Your task to perform on an android device: show emergency info Image 0: 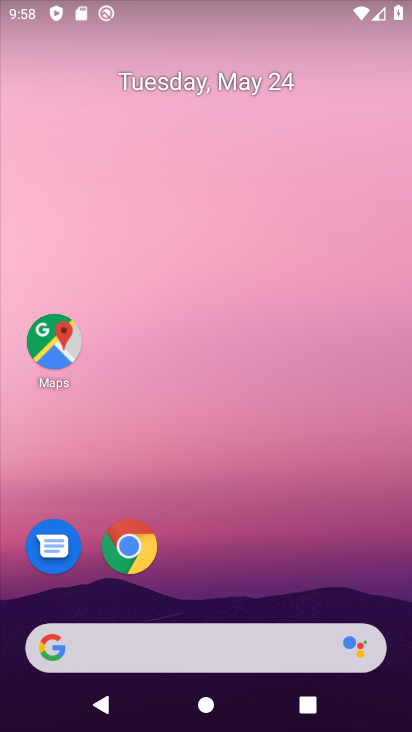
Step 0: drag from (285, 518) to (275, 72)
Your task to perform on an android device: show emergency info Image 1: 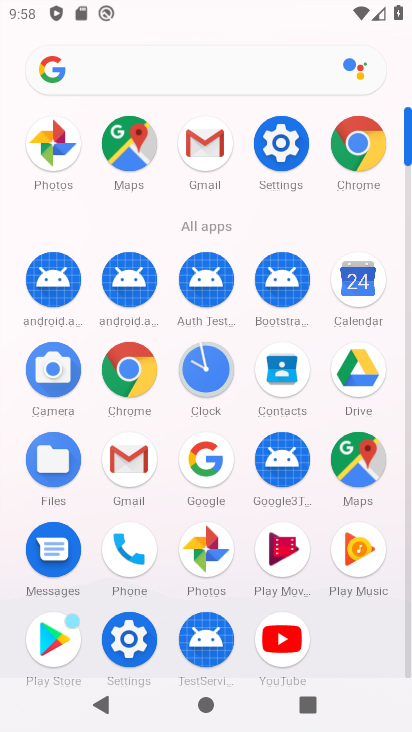
Step 1: click (277, 137)
Your task to perform on an android device: show emergency info Image 2: 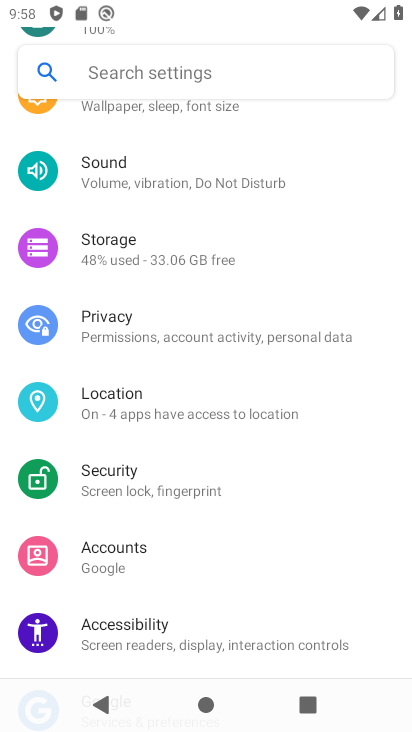
Step 2: drag from (206, 602) to (266, 118)
Your task to perform on an android device: show emergency info Image 3: 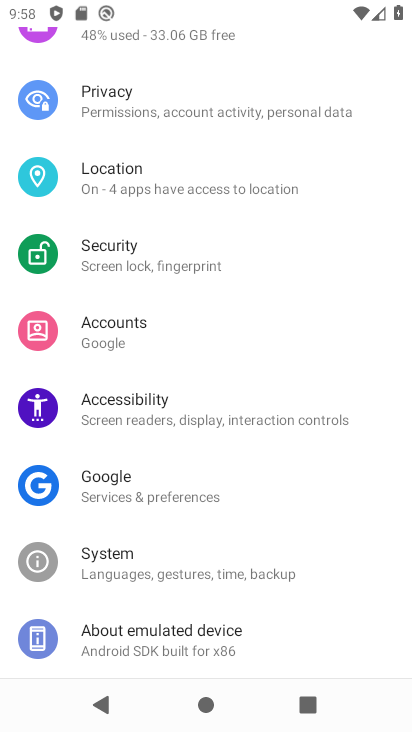
Step 3: drag from (269, 603) to (312, 270)
Your task to perform on an android device: show emergency info Image 4: 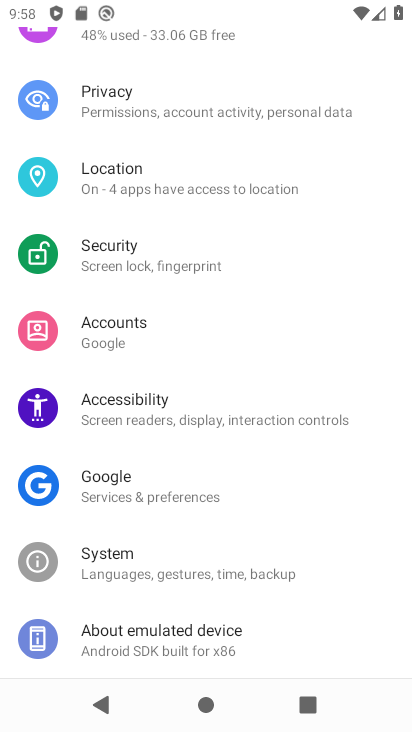
Step 4: click (188, 648)
Your task to perform on an android device: show emergency info Image 5: 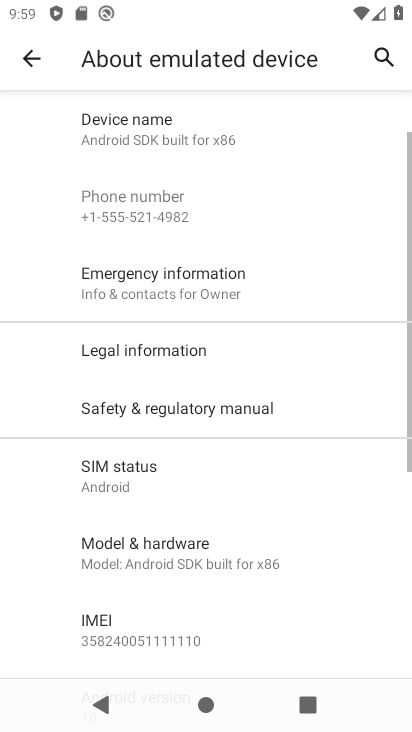
Step 5: click (189, 282)
Your task to perform on an android device: show emergency info Image 6: 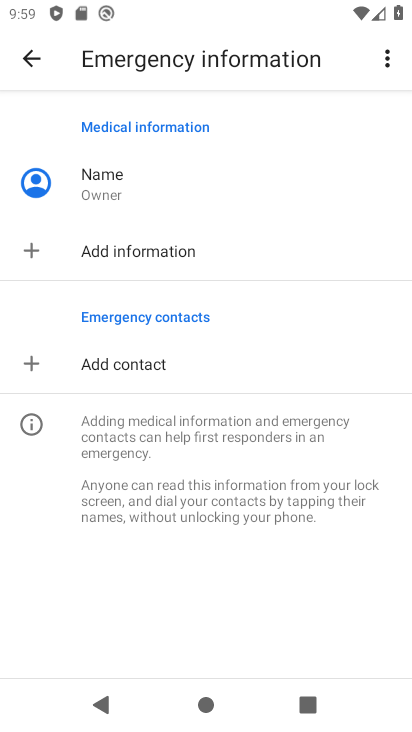
Step 6: task complete